Your task to perform on an android device: Add "energizer triple a" to the cart on walmart Image 0: 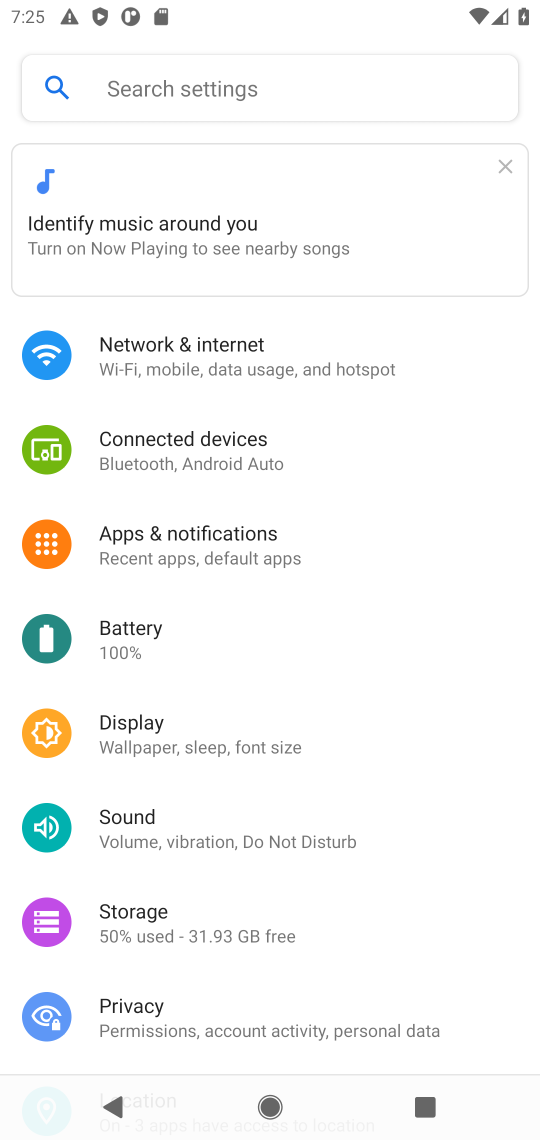
Step 0: press home button
Your task to perform on an android device: Add "energizer triple a" to the cart on walmart Image 1: 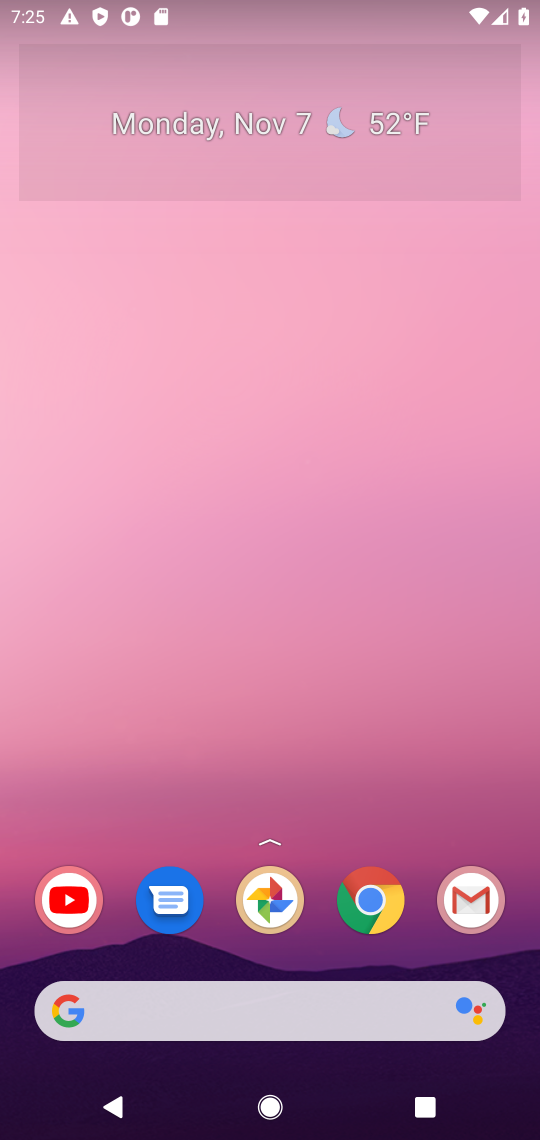
Step 1: click (365, 899)
Your task to perform on an android device: Add "energizer triple a" to the cart on walmart Image 2: 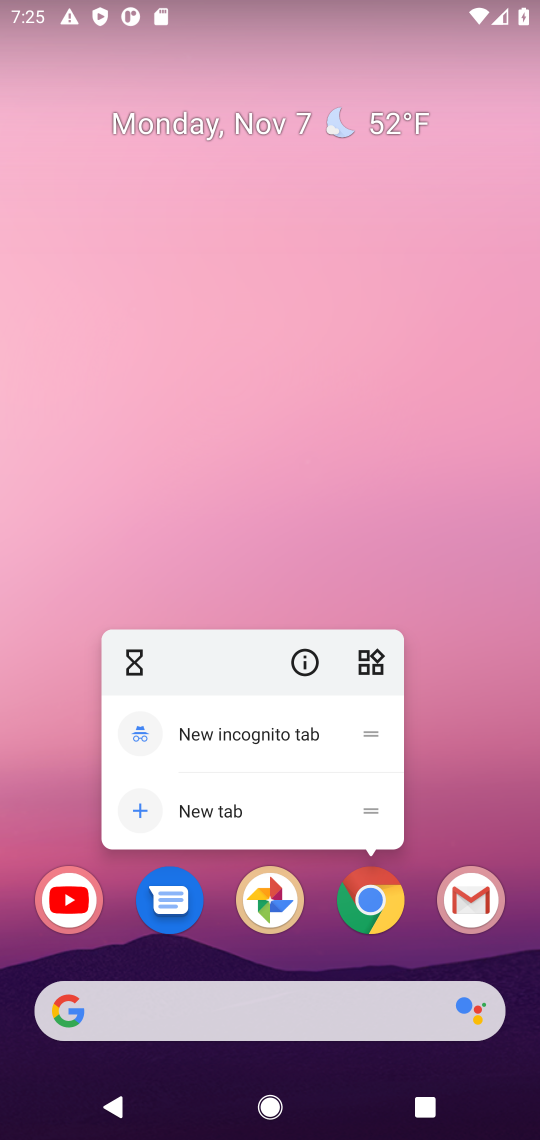
Step 2: click (348, 917)
Your task to perform on an android device: Add "energizer triple a" to the cart on walmart Image 3: 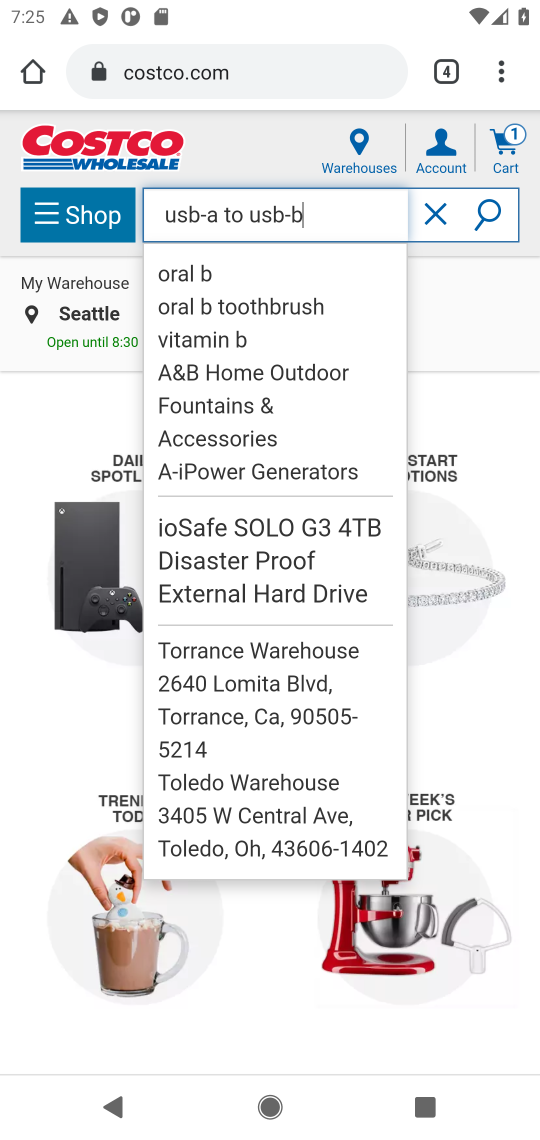
Step 3: click (446, 86)
Your task to perform on an android device: Add "energizer triple a" to the cart on walmart Image 4: 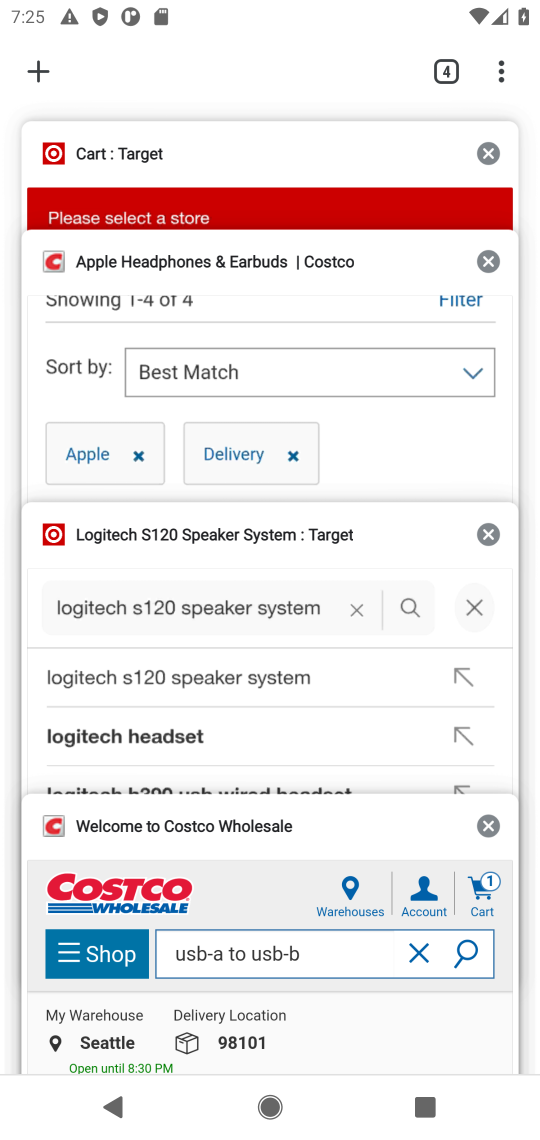
Step 4: click (48, 53)
Your task to perform on an android device: Add "energizer triple a" to the cart on walmart Image 5: 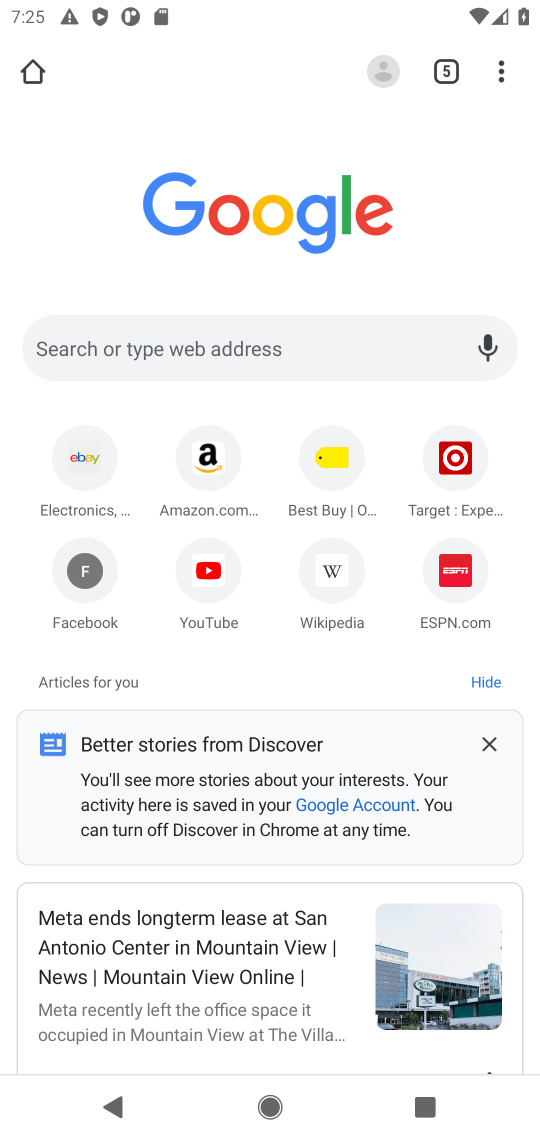
Step 5: click (182, 339)
Your task to perform on an android device: Add "energizer triple a" to the cart on walmart Image 6: 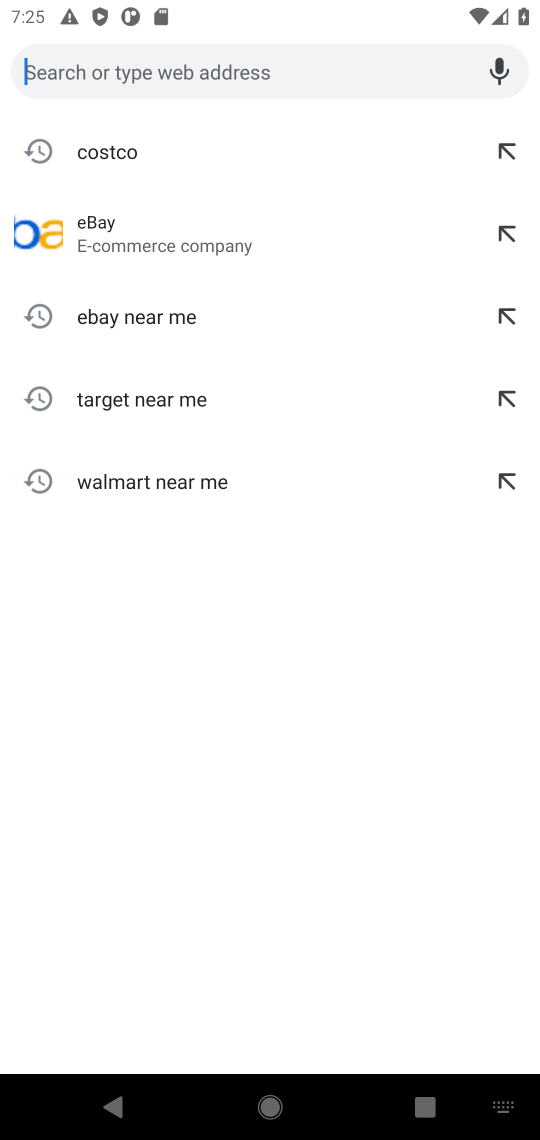
Step 6: type "walmart"
Your task to perform on an android device: Add "energizer triple a" to the cart on walmart Image 7: 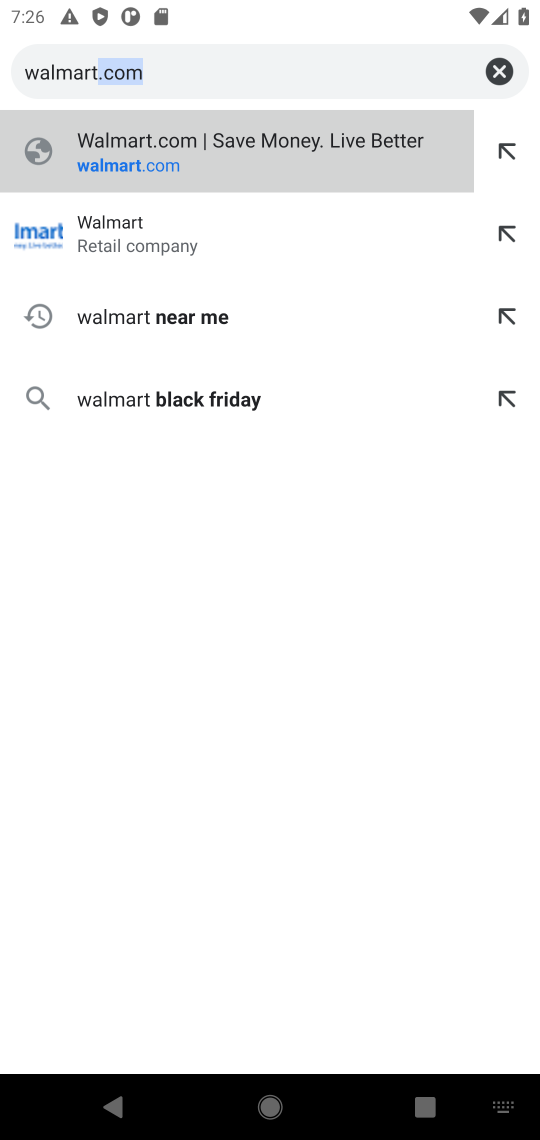
Step 7: click (238, 157)
Your task to perform on an android device: Add "energizer triple a" to the cart on walmart Image 8: 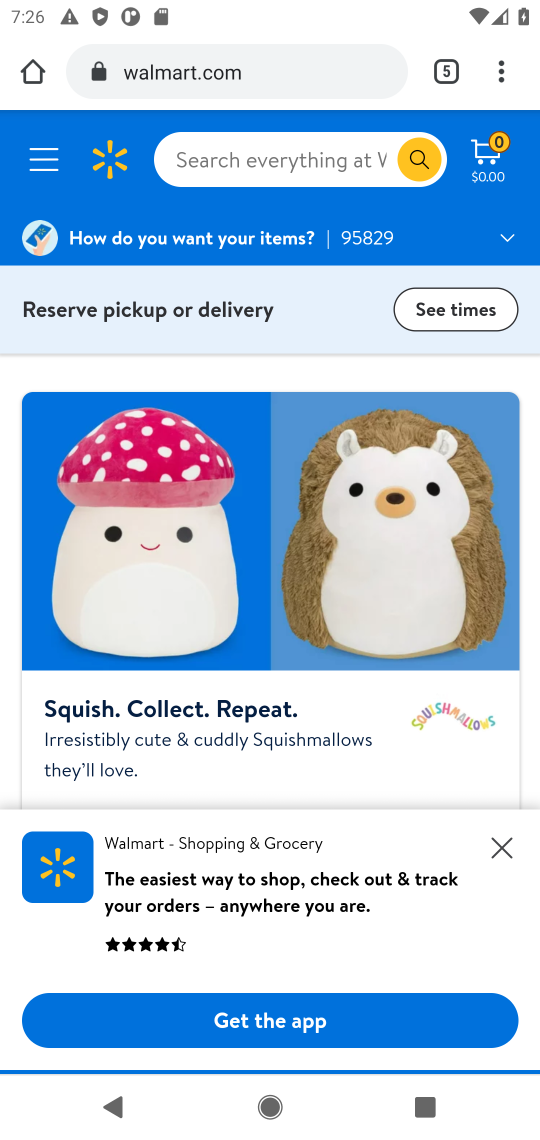
Step 8: click (262, 141)
Your task to perform on an android device: Add "energizer triple a" to the cart on walmart Image 9: 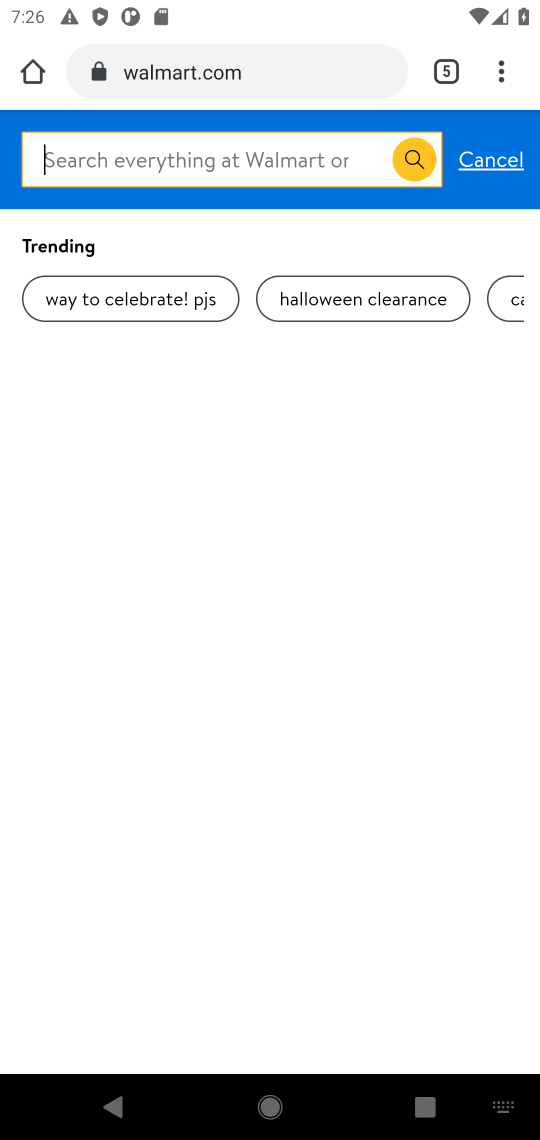
Step 9: click (89, 144)
Your task to perform on an android device: Add "energizer triple a" to the cart on walmart Image 10: 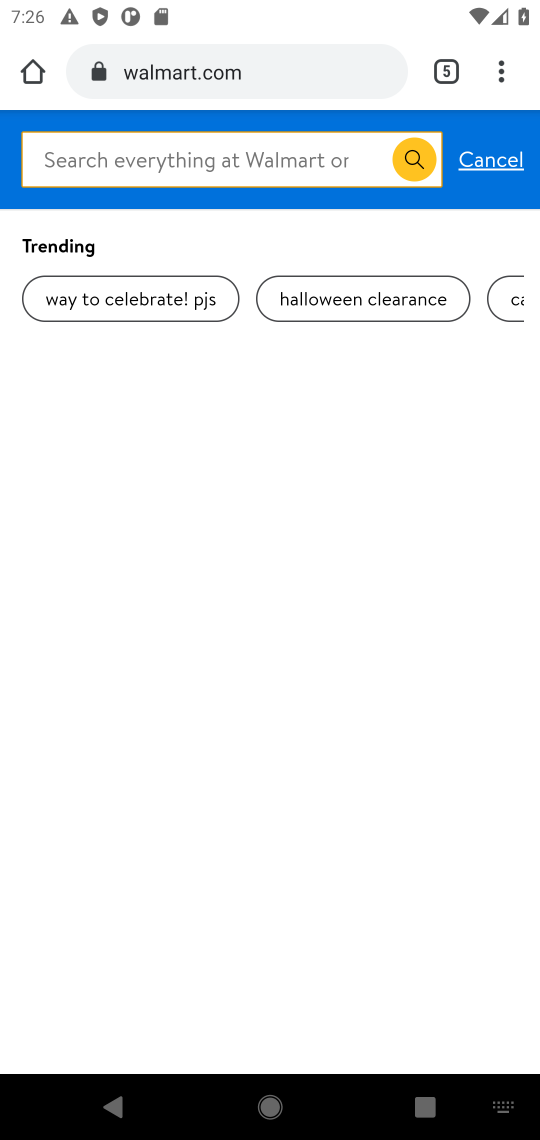
Step 10: type "energizer triple a"
Your task to perform on an android device: Add "energizer triple a" to the cart on walmart Image 11: 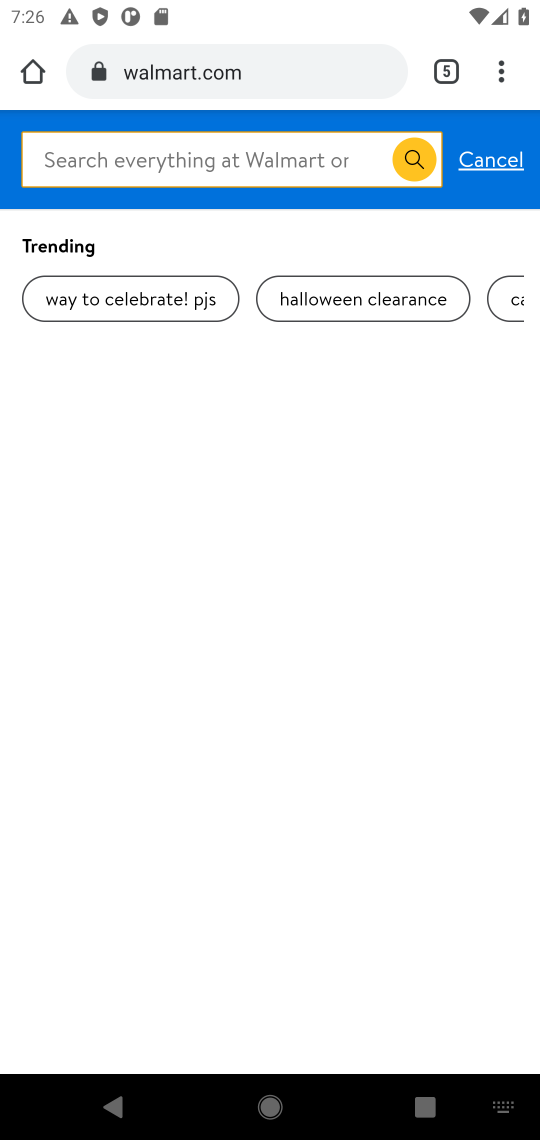
Step 11: click (320, 666)
Your task to perform on an android device: Add "energizer triple a" to the cart on walmart Image 12: 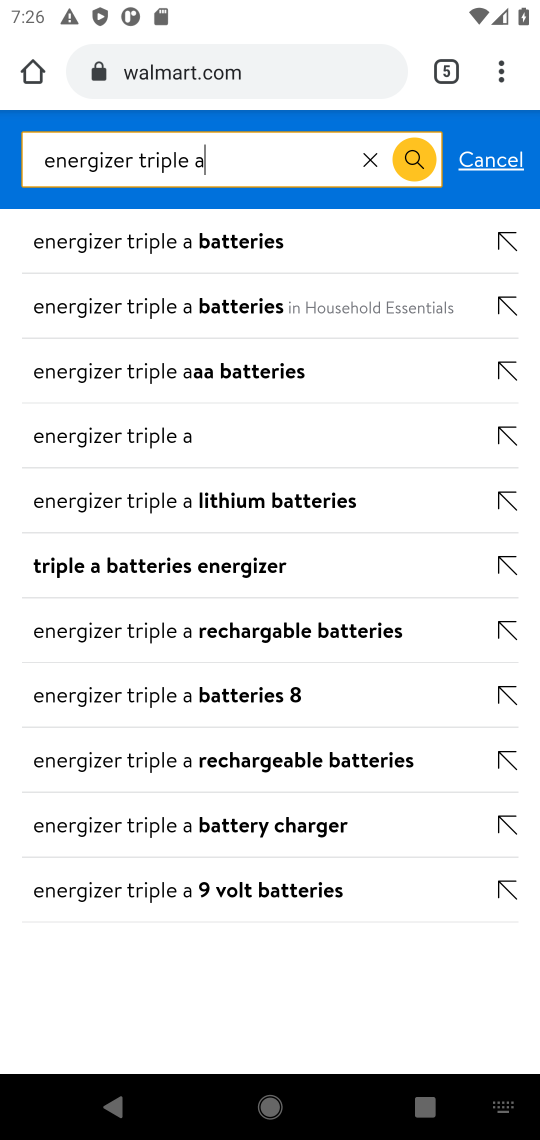
Step 12: click (219, 454)
Your task to perform on an android device: Add "energizer triple a" to the cart on walmart Image 13: 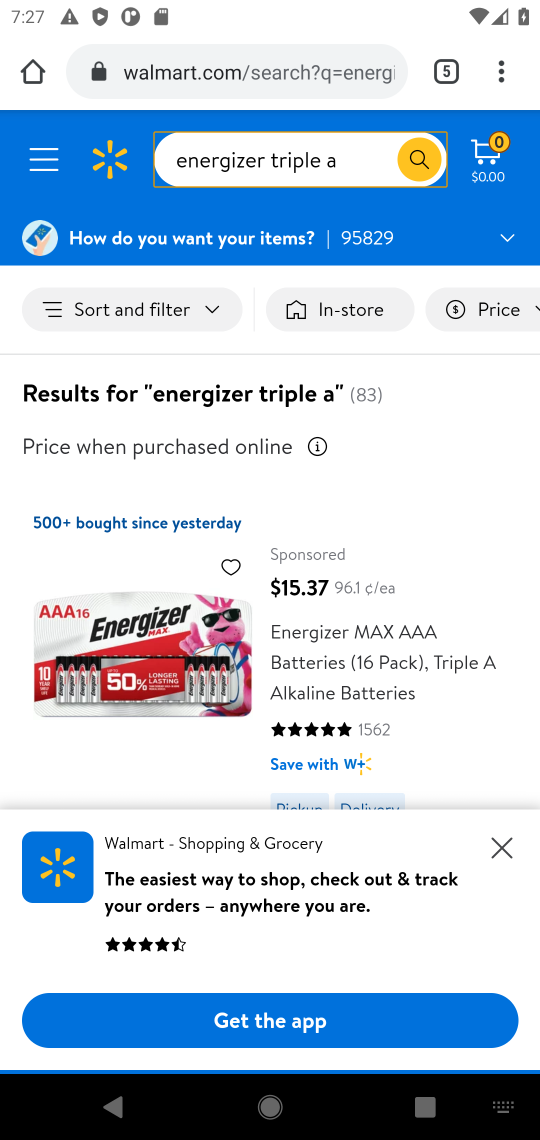
Step 13: click (177, 669)
Your task to perform on an android device: Add "energizer triple a" to the cart on walmart Image 14: 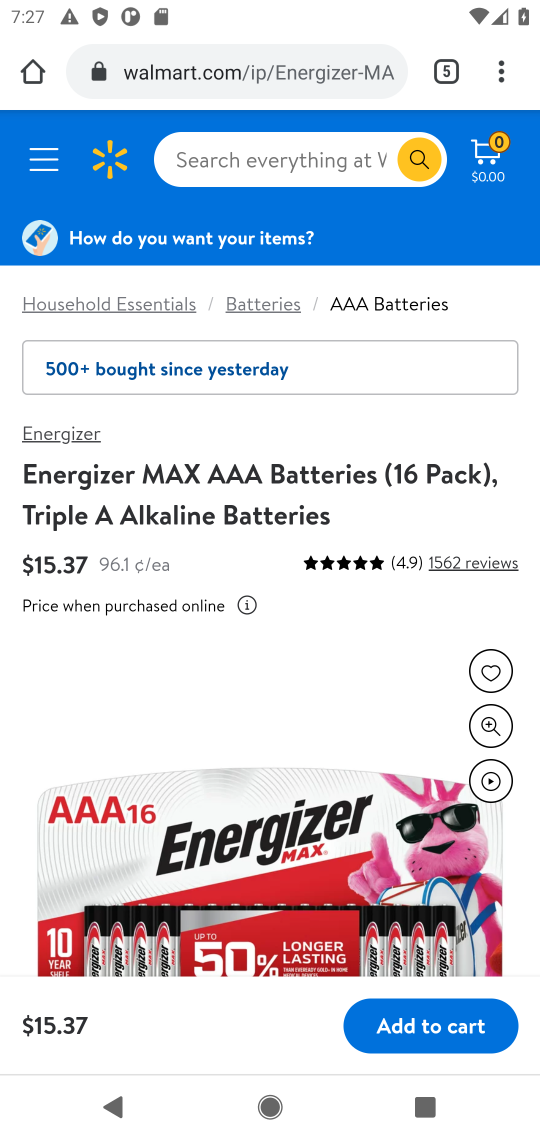
Step 14: drag from (365, 842) to (473, 237)
Your task to perform on an android device: Add "energizer triple a" to the cart on walmart Image 15: 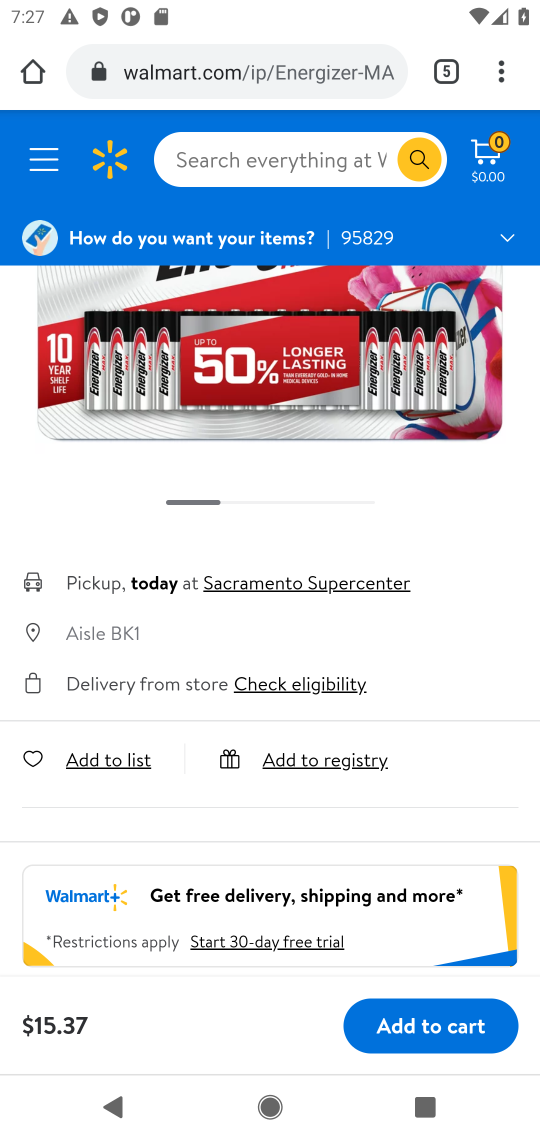
Step 15: drag from (367, 798) to (443, 215)
Your task to perform on an android device: Add "energizer triple a" to the cart on walmart Image 16: 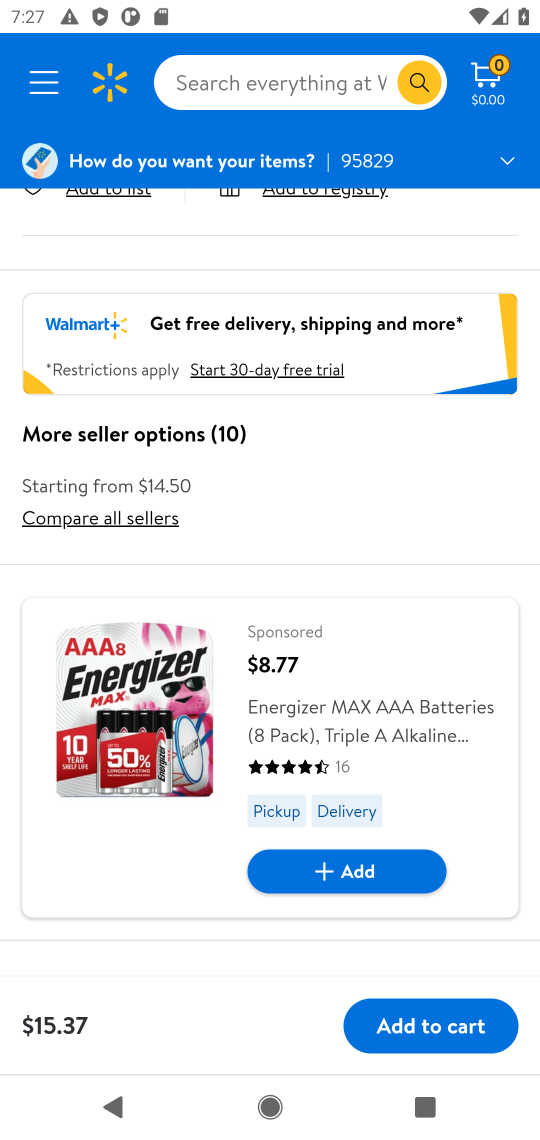
Step 16: click (361, 883)
Your task to perform on an android device: Add "energizer triple a" to the cart on walmart Image 17: 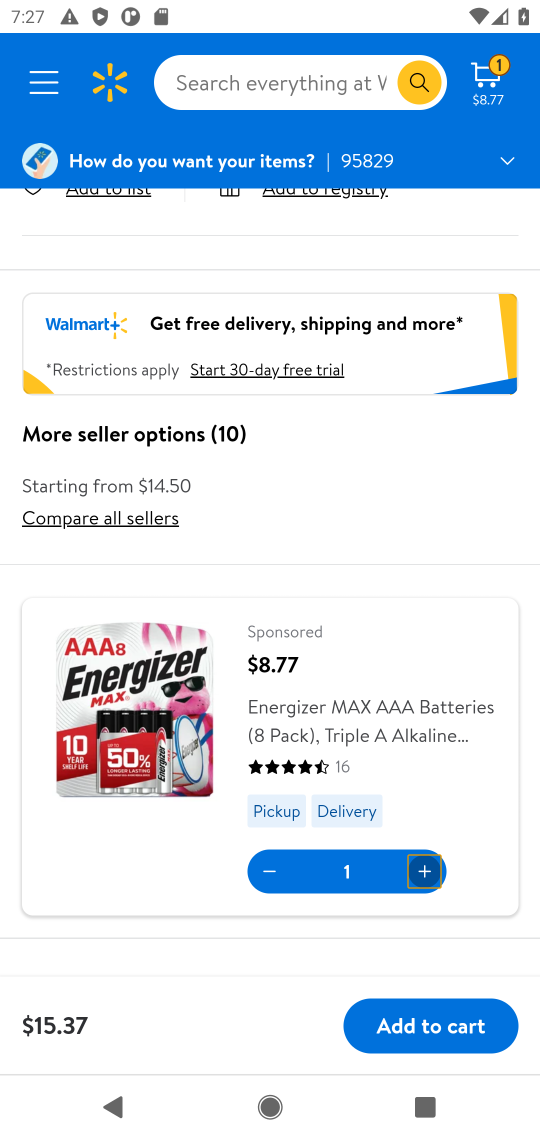
Step 17: drag from (291, 766) to (327, 418)
Your task to perform on an android device: Add "energizer triple a" to the cart on walmart Image 18: 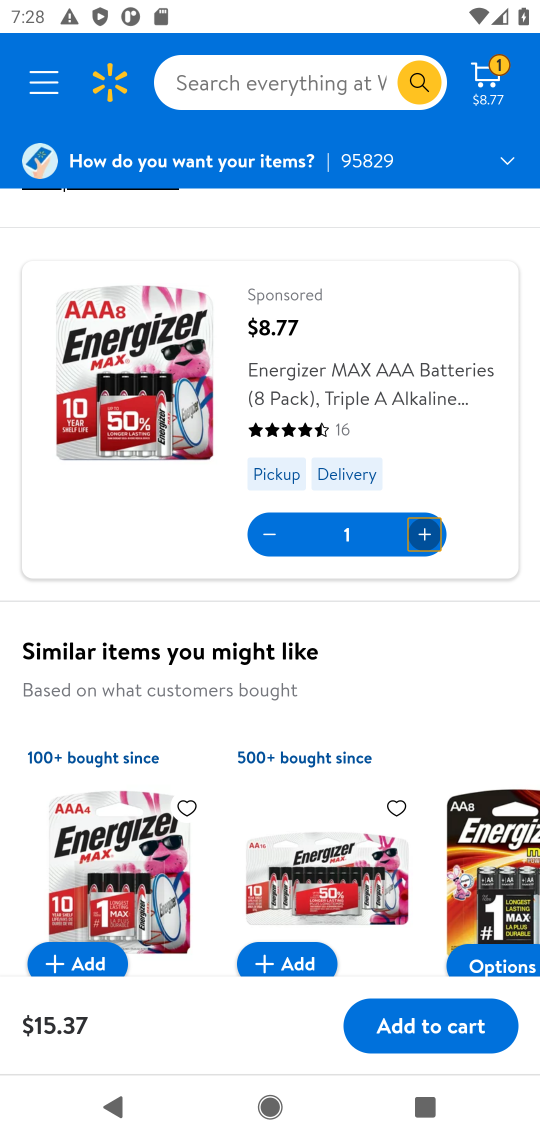
Step 18: drag from (334, 268) to (282, 653)
Your task to perform on an android device: Add "energizer triple a" to the cart on walmart Image 19: 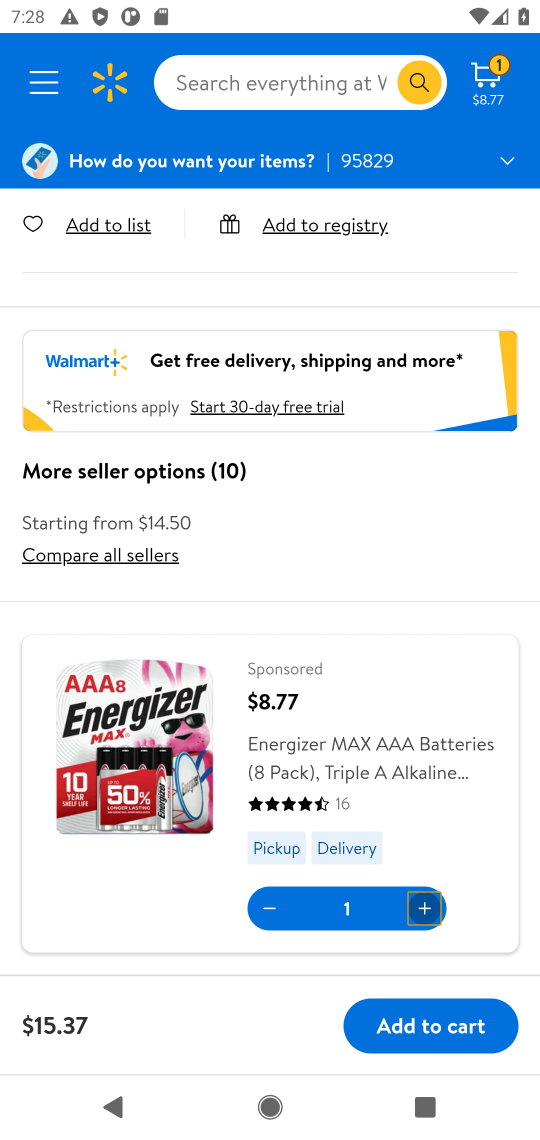
Step 19: drag from (293, 782) to (338, 515)
Your task to perform on an android device: Add "energizer triple a" to the cart on walmart Image 20: 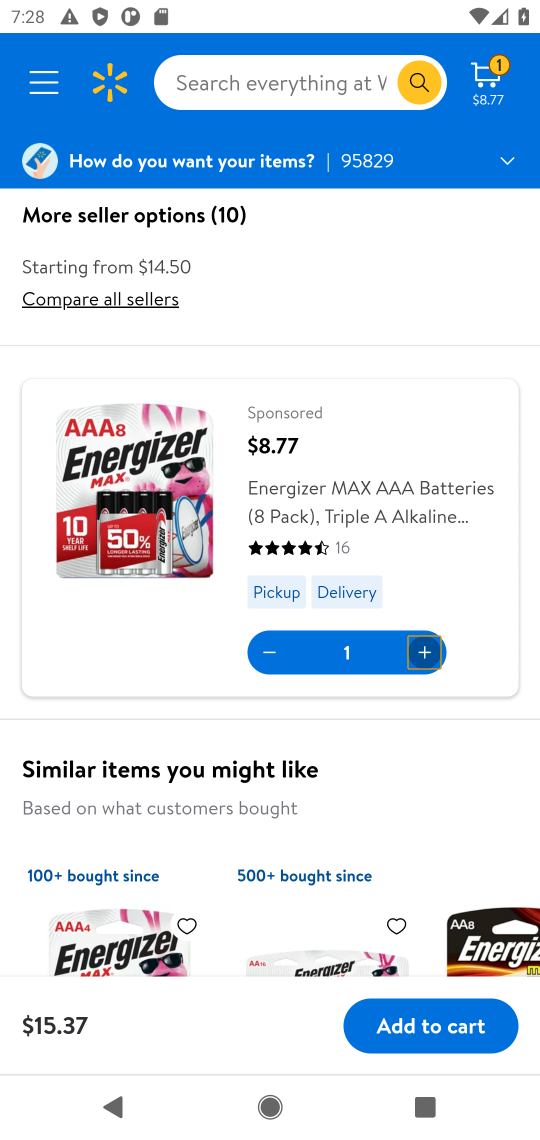
Step 20: click (425, 1031)
Your task to perform on an android device: Add "energizer triple a" to the cart on walmart Image 21: 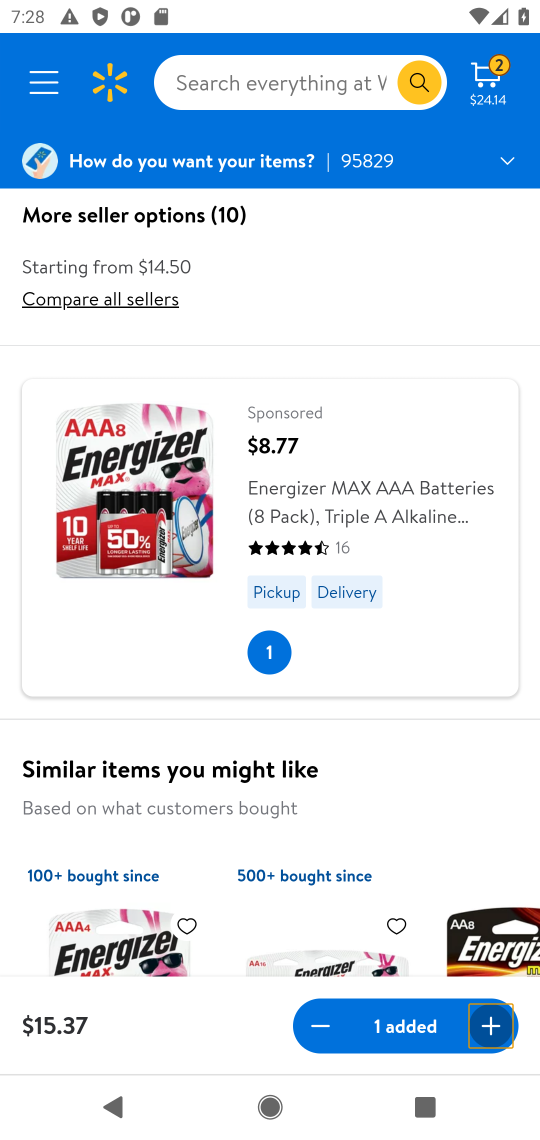
Step 21: task complete